Your task to perform on an android device: change the clock style Image 0: 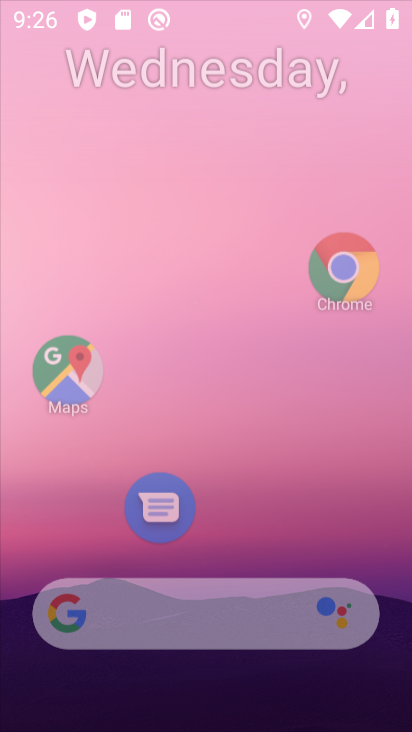
Step 0: drag from (299, 487) to (304, 431)
Your task to perform on an android device: change the clock style Image 1: 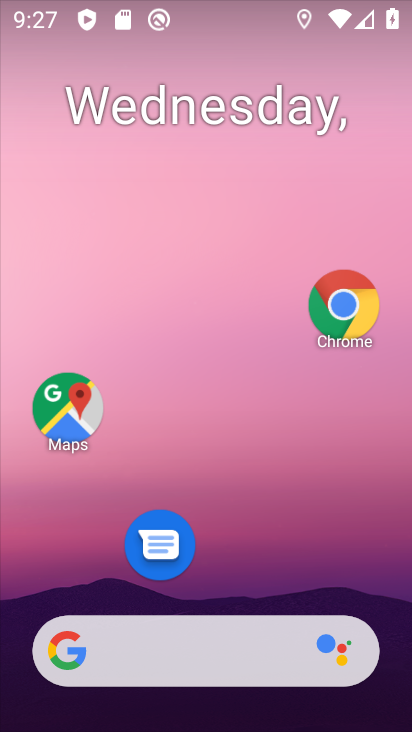
Step 1: drag from (313, 574) to (307, 281)
Your task to perform on an android device: change the clock style Image 2: 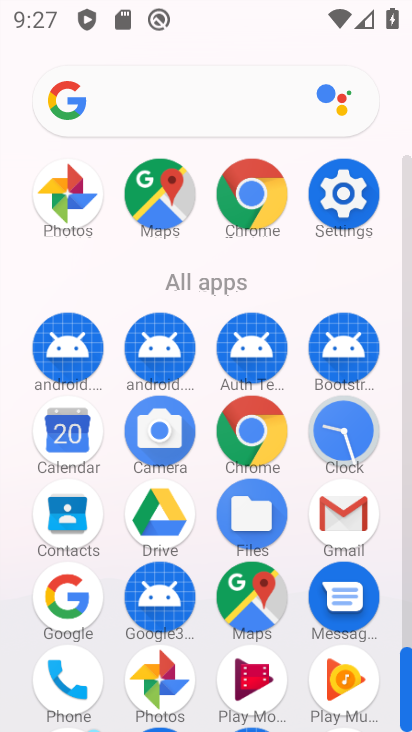
Step 2: click (354, 429)
Your task to perform on an android device: change the clock style Image 3: 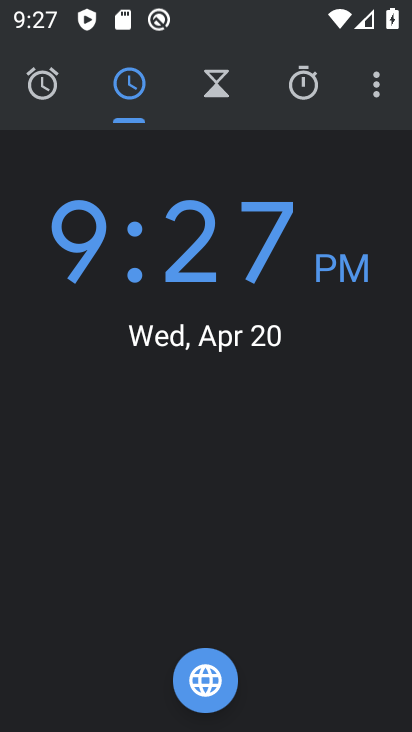
Step 3: click (383, 85)
Your task to perform on an android device: change the clock style Image 4: 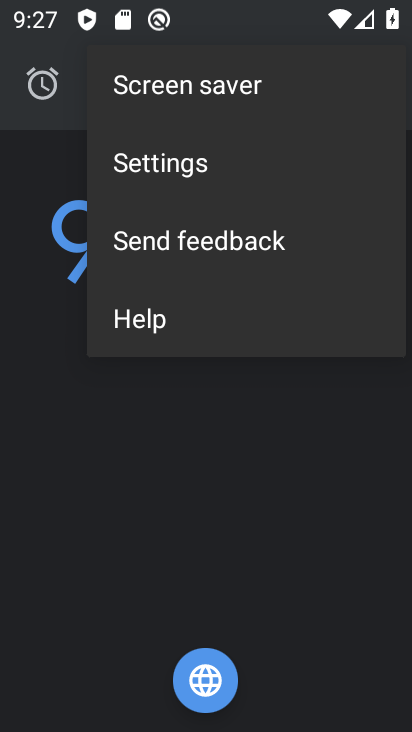
Step 4: click (182, 175)
Your task to perform on an android device: change the clock style Image 5: 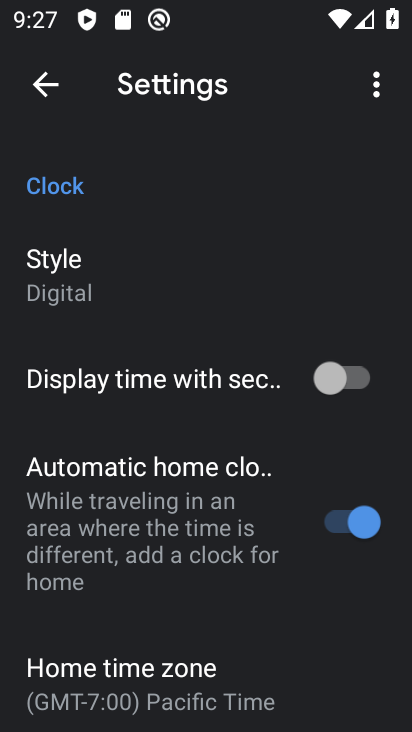
Step 5: click (159, 302)
Your task to perform on an android device: change the clock style Image 6: 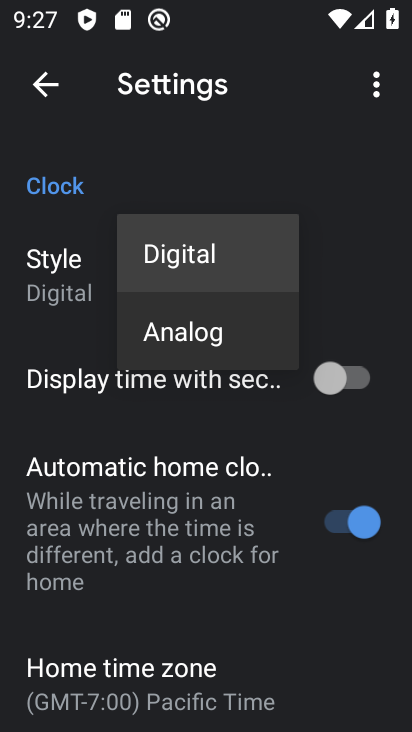
Step 6: click (175, 337)
Your task to perform on an android device: change the clock style Image 7: 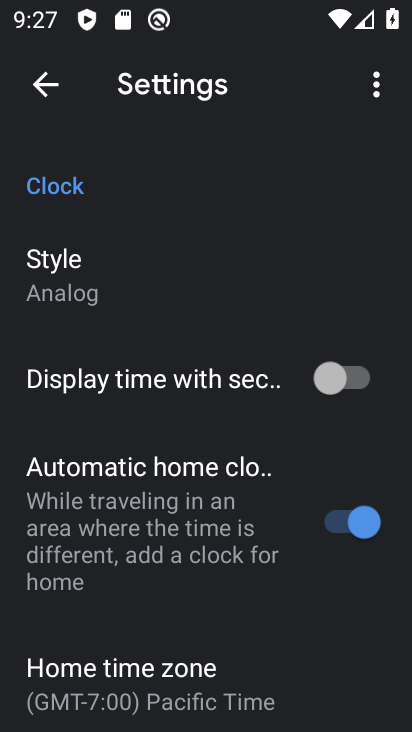
Step 7: task complete